Your task to perform on an android device: toggle data saver in the chrome app Image 0: 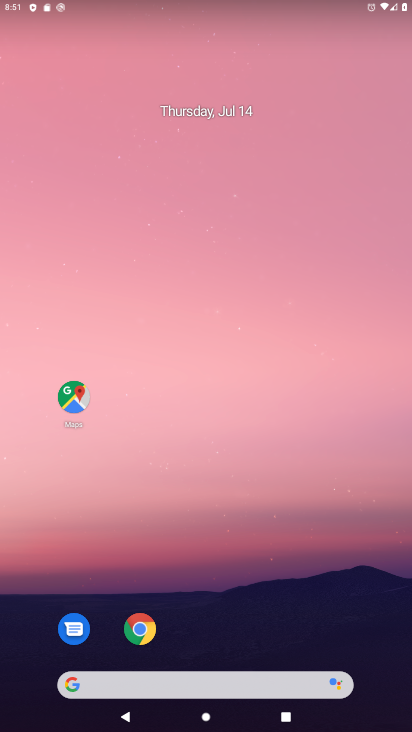
Step 0: click (151, 625)
Your task to perform on an android device: toggle data saver in the chrome app Image 1: 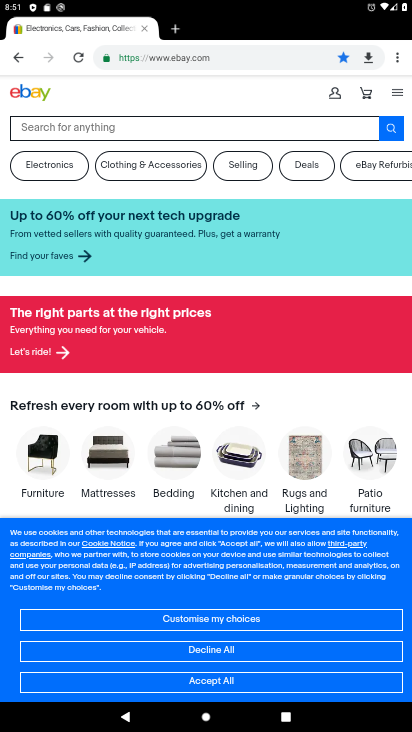
Step 1: click (401, 57)
Your task to perform on an android device: toggle data saver in the chrome app Image 2: 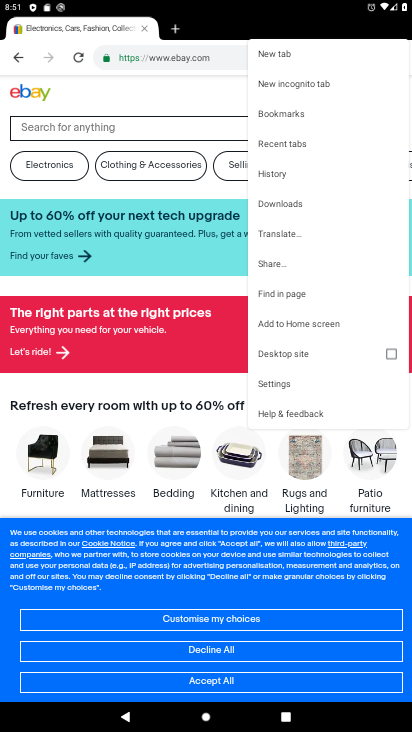
Step 2: click (284, 379)
Your task to perform on an android device: toggle data saver in the chrome app Image 3: 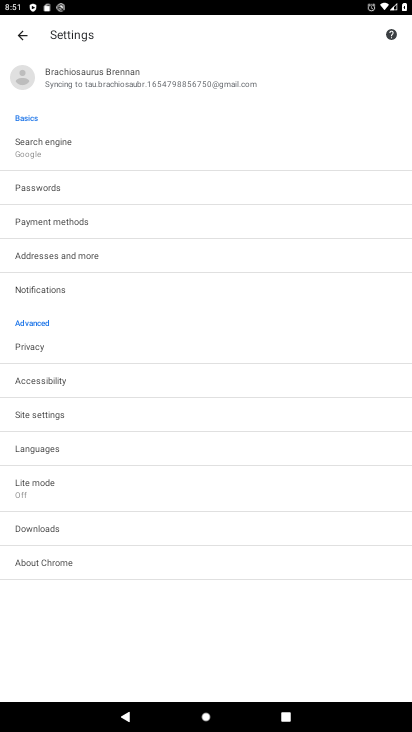
Step 3: click (57, 481)
Your task to perform on an android device: toggle data saver in the chrome app Image 4: 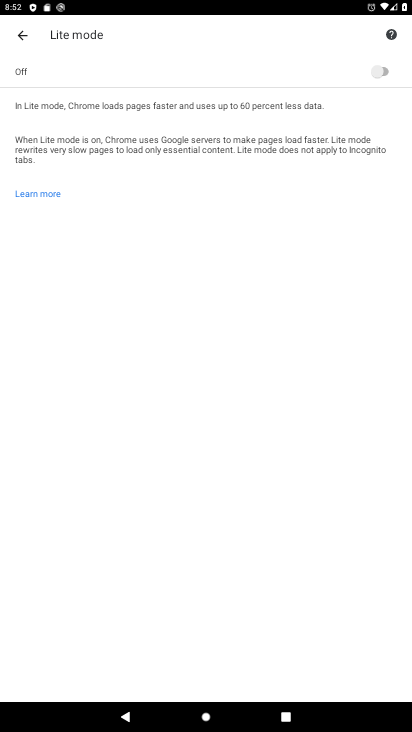
Step 4: click (387, 68)
Your task to perform on an android device: toggle data saver in the chrome app Image 5: 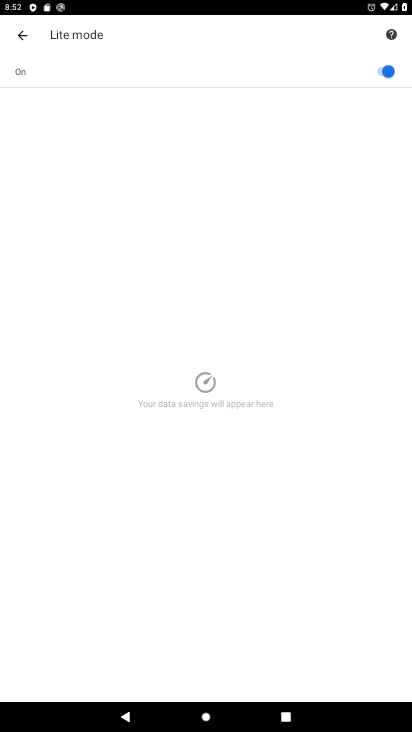
Step 5: task complete